Your task to perform on an android device: change the clock display to digital Image 0: 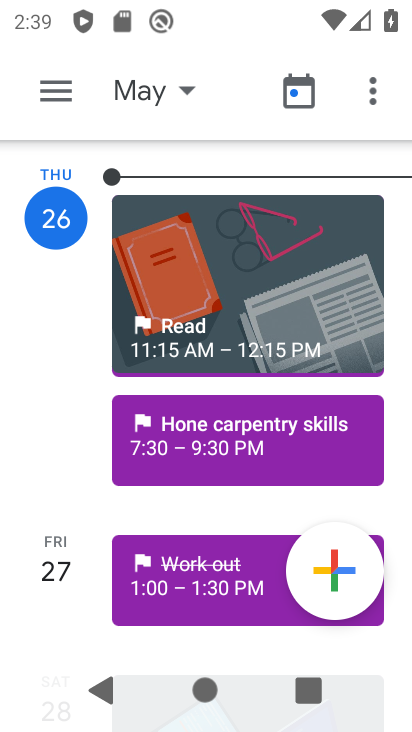
Step 0: press home button
Your task to perform on an android device: change the clock display to digital Image 1: 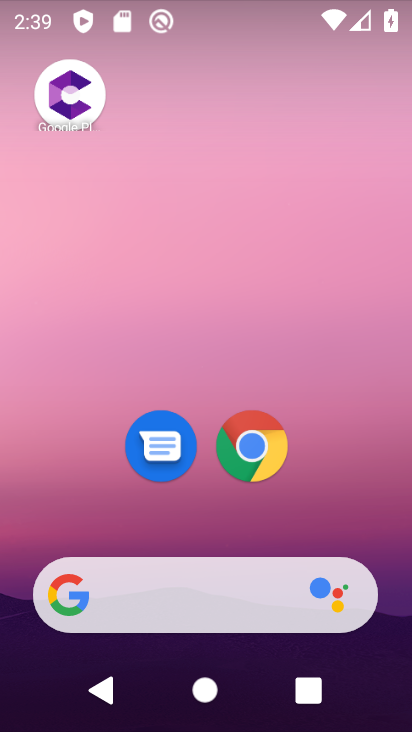
Step 1: drag from (356, 552) to (402, 1)
Your task to perform on an android device: change the clock display to digital Image 2: 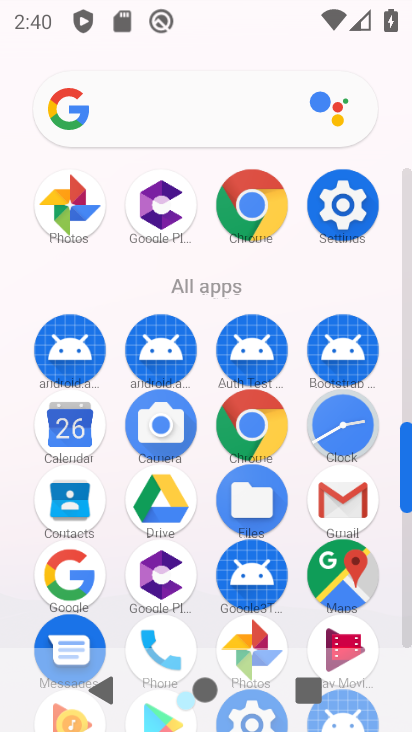
Step 2: click (335, 425)
Your task to perform on an android device: change the clock display to digital Image 3: 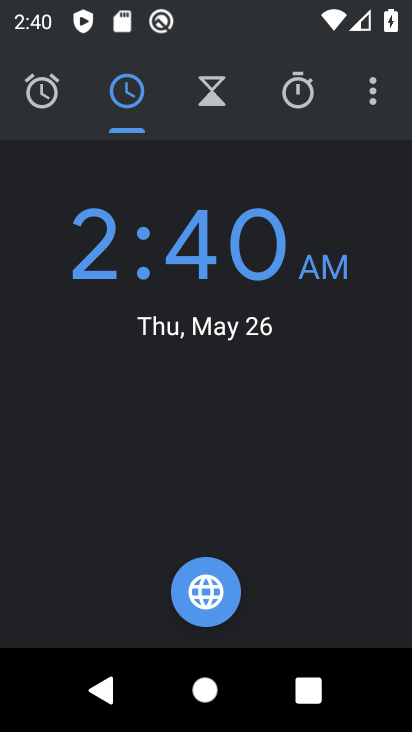
Step 3: click (379, 94)
Your task to perform on an android device: change the clock display to digital Image 4: 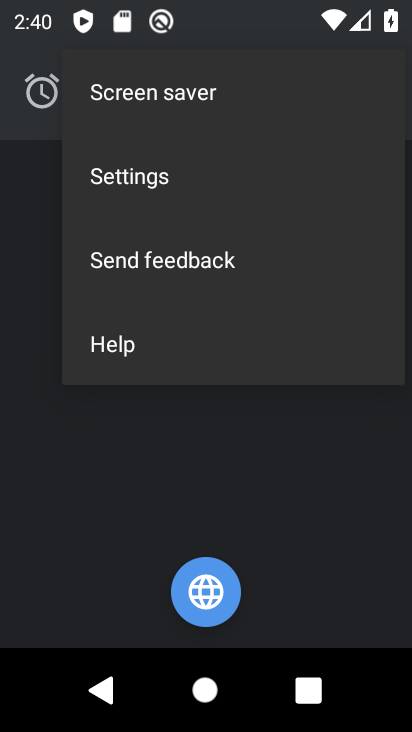
Step 4: click (99, 179)
Your task to perform on an android device: change the clock display to digital Image 5: 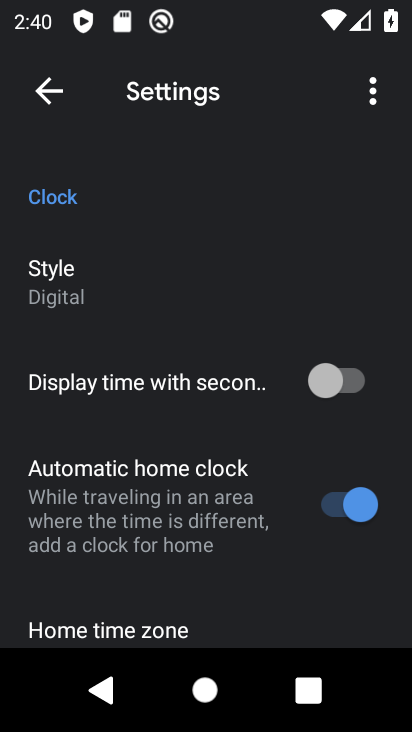
Step 5: task complete